Your task to perform on an android device: turn on translation in the chrome app Image 0: 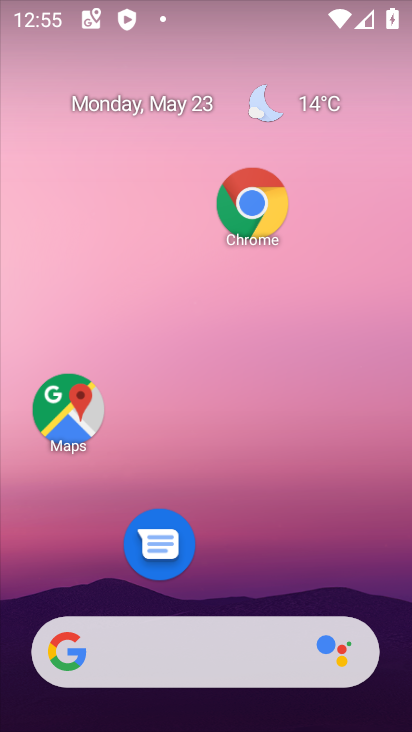
Step 0: click (250, 212)
Your task to perform on an android device: turn on translation in the chrome app Image 1: 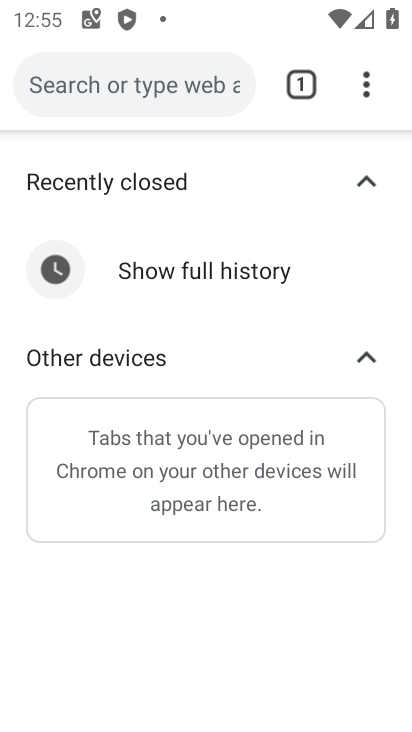
Step 1: drag from (377, 83) to (165, 587)
Your task to perform on an android device: turn on translation in the chrome app Image 2: 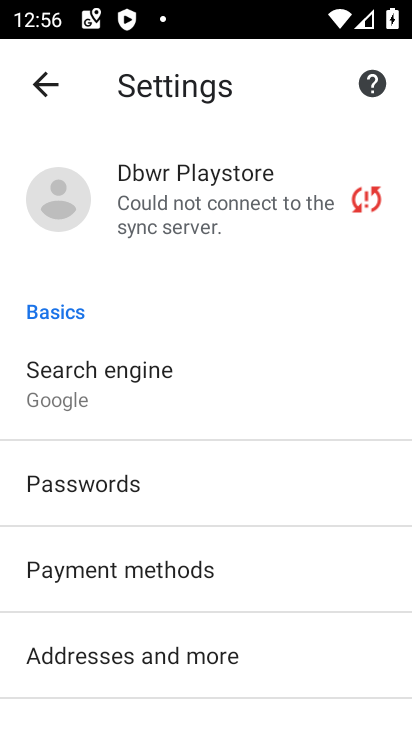
Step 2: drag from (267, 625) to (280, 172)
Your task to perform on an android device: turn on translation in the chrome app Image 3: 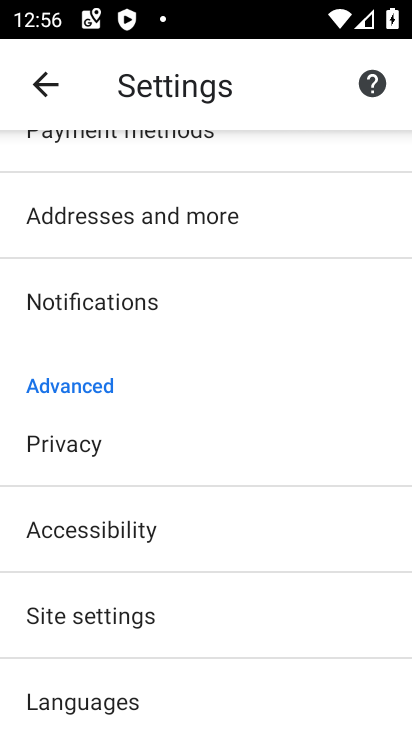
Step 3: drag from (114, 589) to (206, 292)
Your task to perform on an android device: turn on translation in the chrome app Image 4: 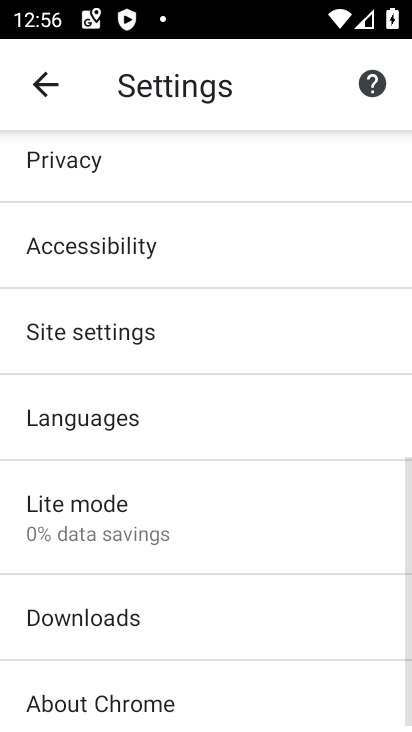
Step 4: click (133, 432)
Your task to perform on an android device: turn on translation in the chrome app Image 5: 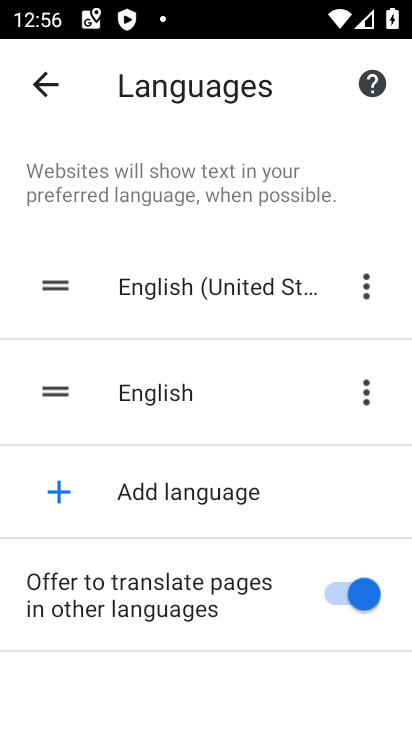
Step 5: task complete